Your task to perform on an android device: check android version Image 0: 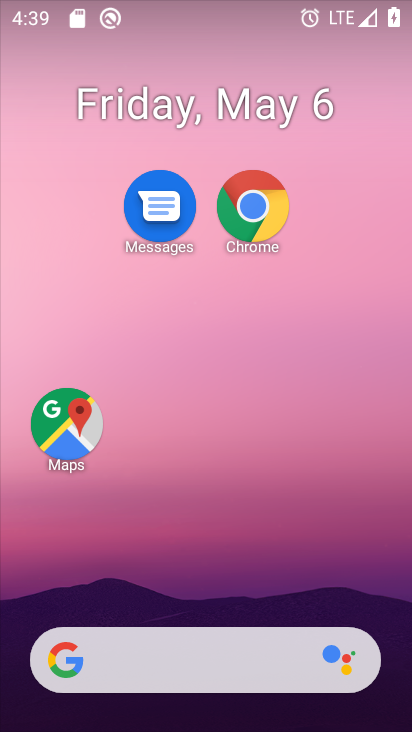
Step 0: press home button
Your task to perform on an android device: check android version Image 1: 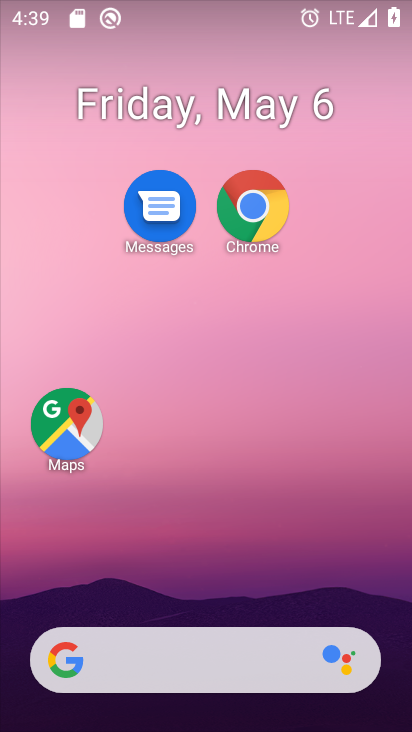
Step 1: drag from (198, 629) to (177, 327)
Your task to perform on an android device: check android version Image 2: 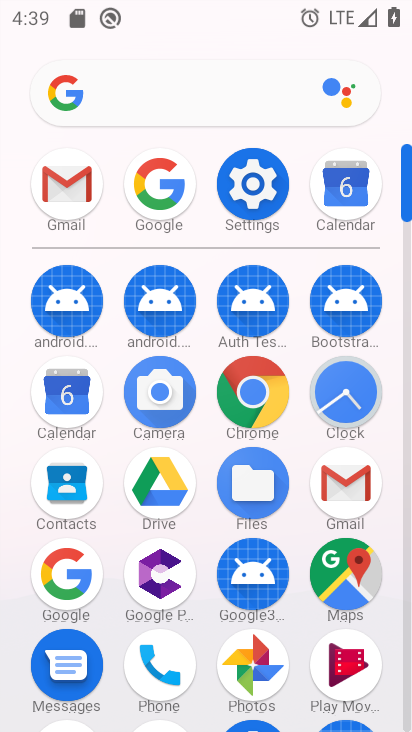
Step 2: click (248, 186)
Your task to perform on an android device: check android version Image 3: 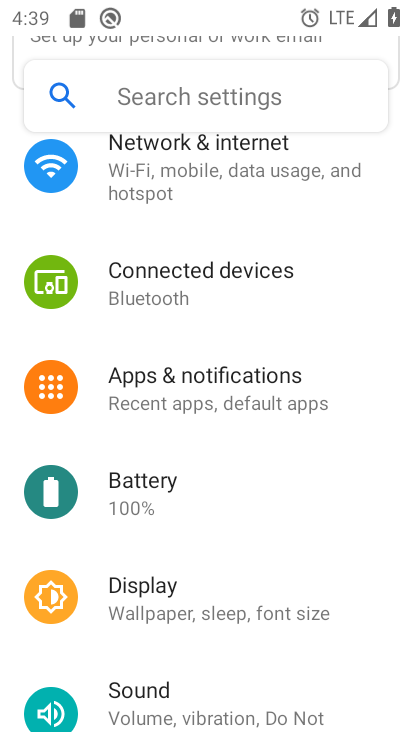
Step 3: drag from (191, 681) to (216, 299)
Your task to perform on an android device: check android version Image 4: 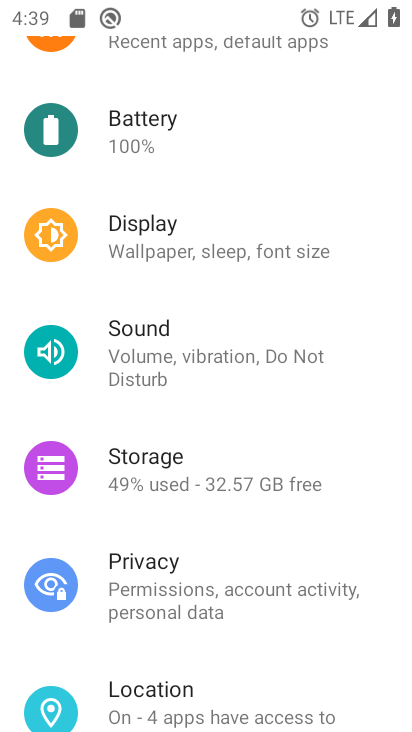
Step 4: drag from (193, 695) to (181, 365)
Your task to perform on an android device: check android version Image 5: 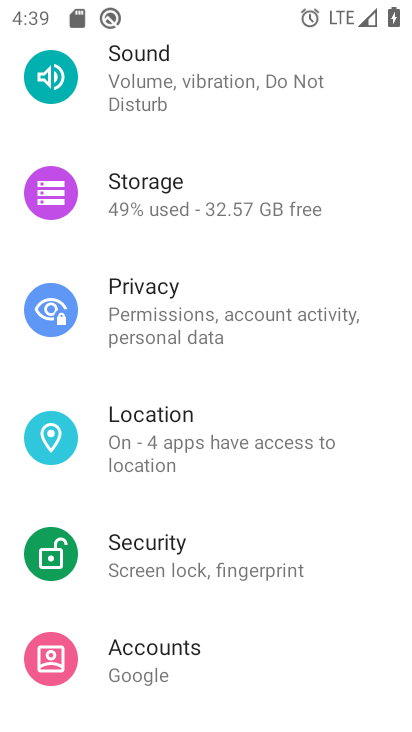
Step 5: drag from (138, 694) to (173, 442)
Your task to perform on an android device: check android version Image 6: 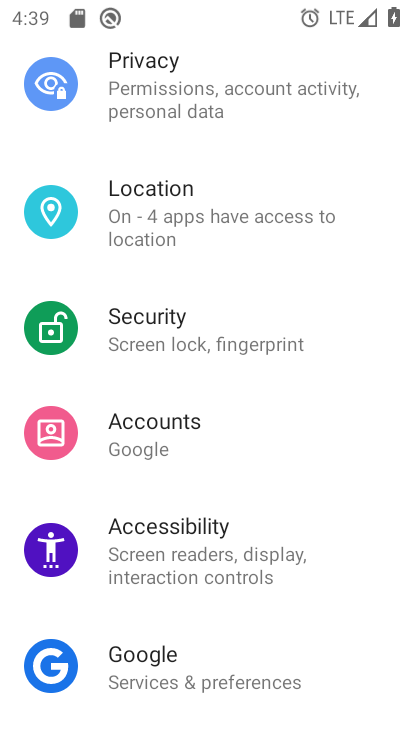
Step 6: drag from (165, 717) to (168, 435)
Your task to perform on an android device: check android version Image 7: 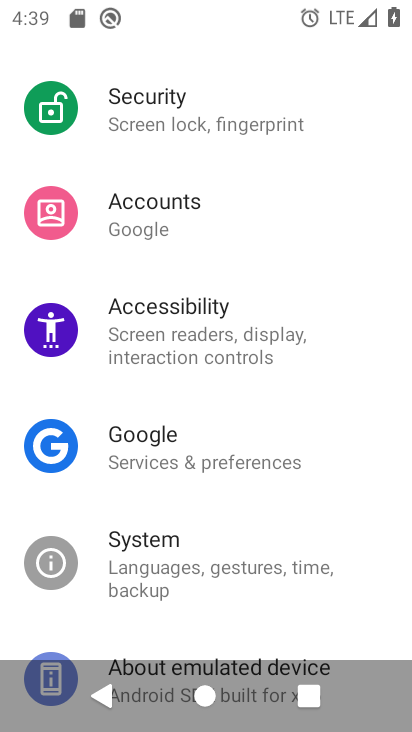
Step 7: drag from (165, 634) to (165, 389)
Your task to perform on an android device: check android version Image 8: 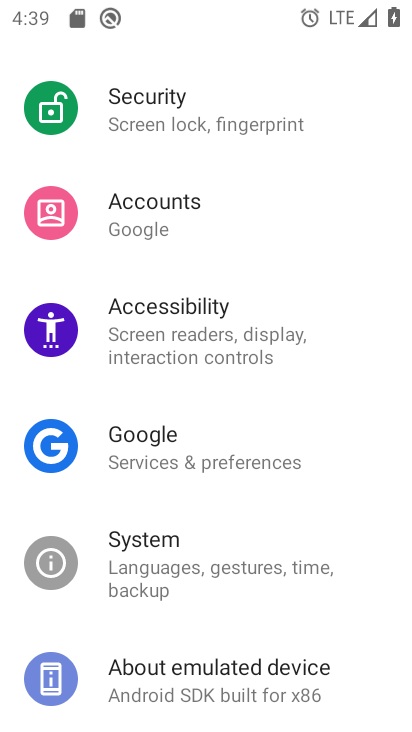
Step 8: click (167, 685)
Your task to perform on an android device: check android version Image 9: 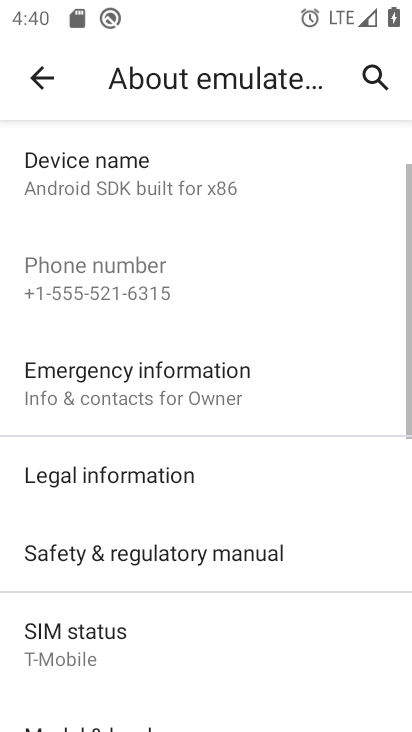
Step 9: drag from (161, 696) to (155, 366)
Your task to perform on an android device: check android version Image 10: 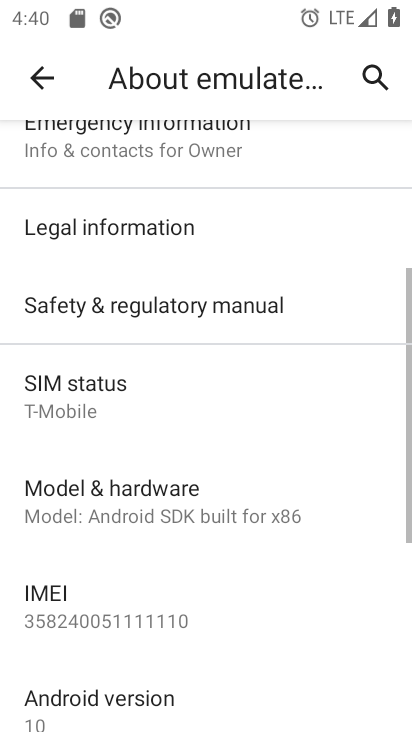
Step 10: click (120, 715)
Your task to perform on an android device: check android version Image 11: 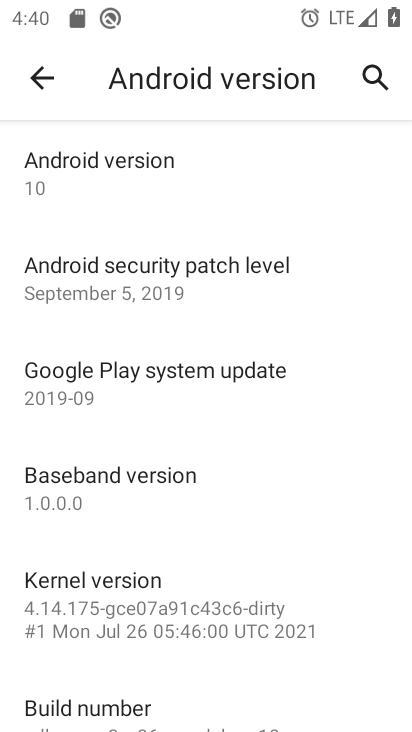
Step 11: task complete